Your task to perform on an android device: turn smart compose on in the gmail app Image 0: 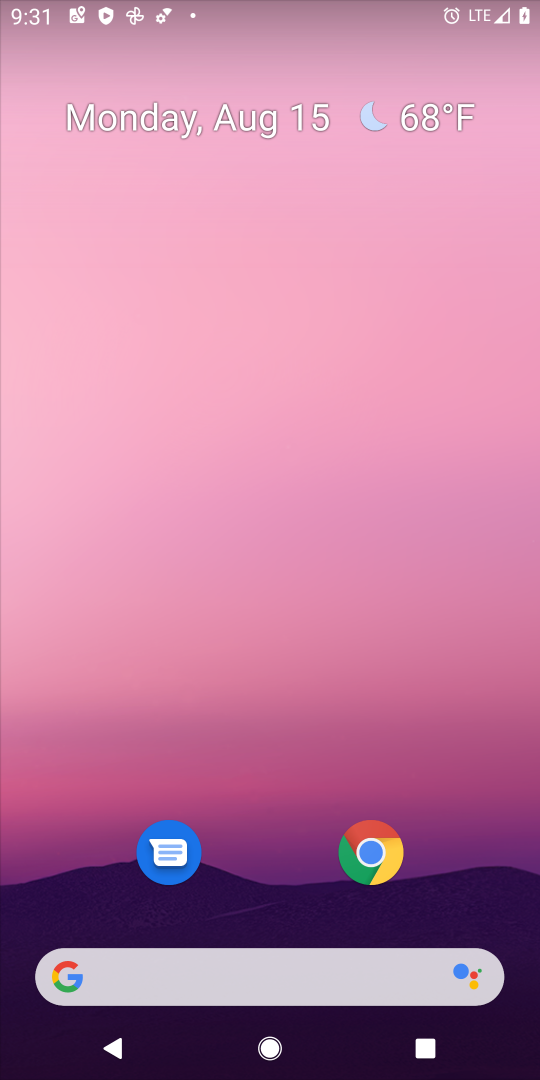
Step 0: drag from (242, 957) to (247, 92)
Your task to perform on an android device: turn smart compose on in the gmail app Image 1: 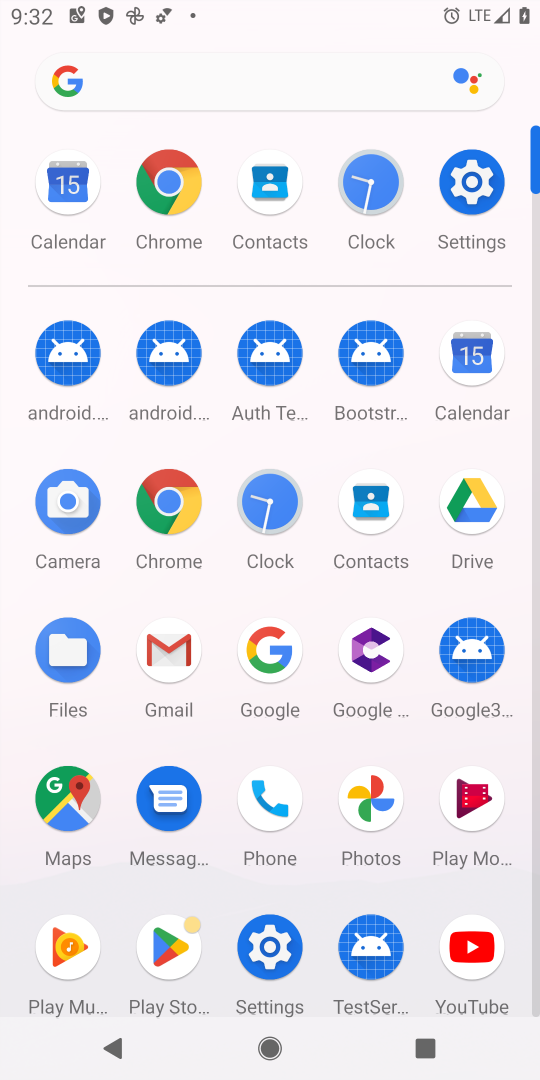
Step 1: click (166, 650)
Your task to perform on an android device: turn smart compose on in the gmail app Image 2: 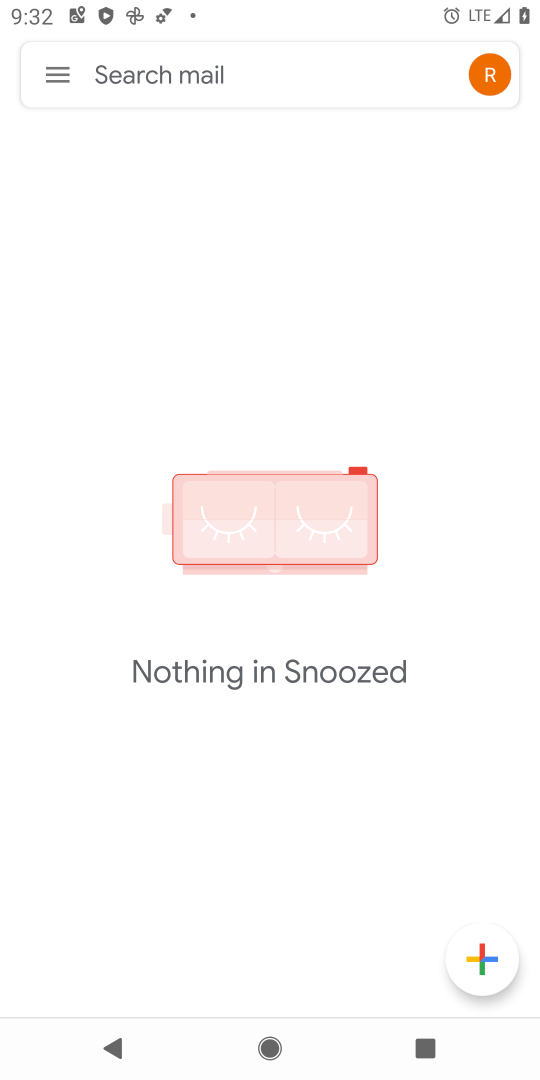
Step 2: click (56, 77)
Your task to perform on an android device: turn smart compose on in the gmail app Image 3: 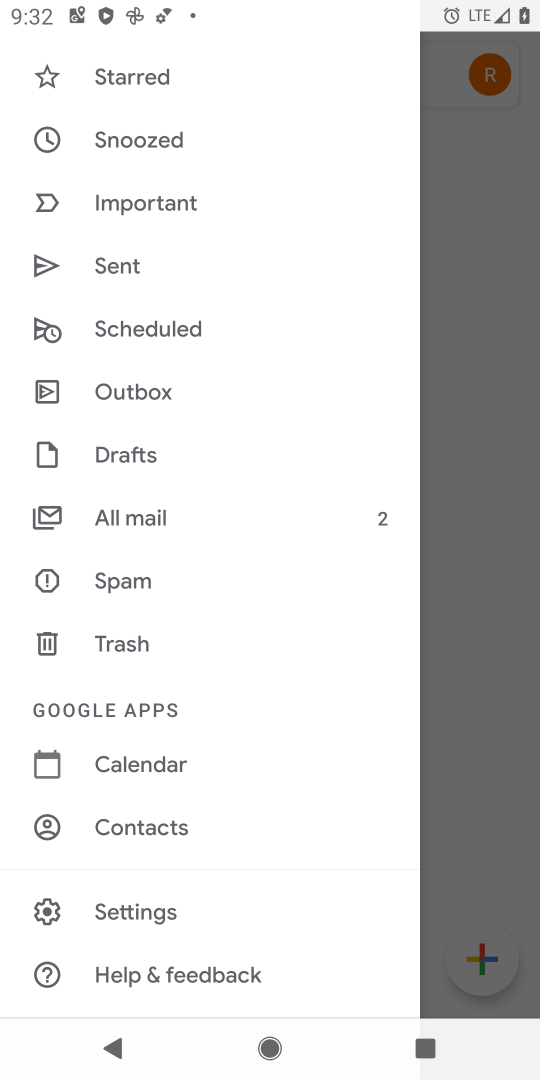
Step 3: click (141, 908)
Your task to perform on an android device: turn smart compose on in the gmail app Image 4: 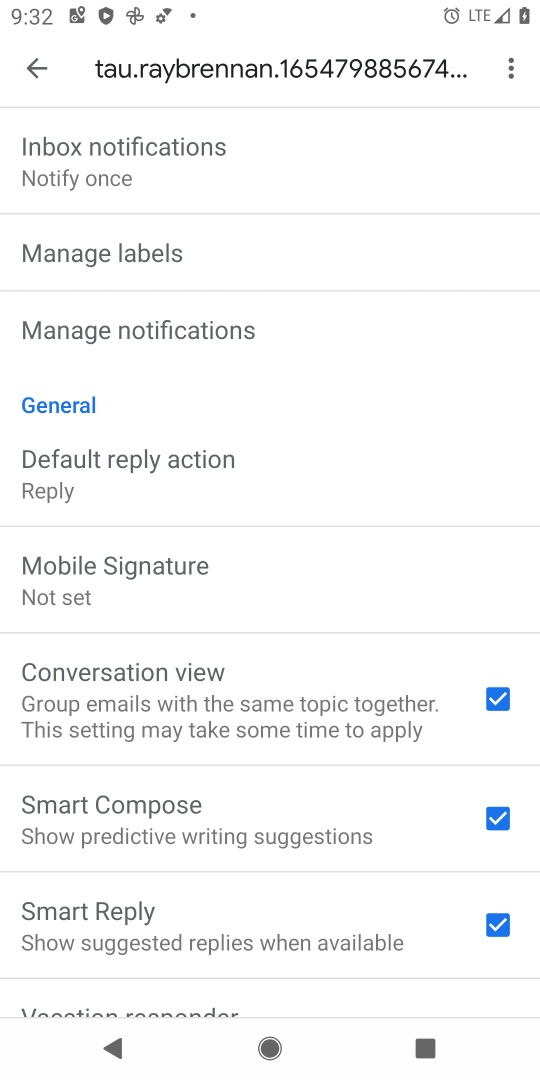
Step 4: task complete